Your task to perform on an android device: toggle javascript in the chrome app Image 0: 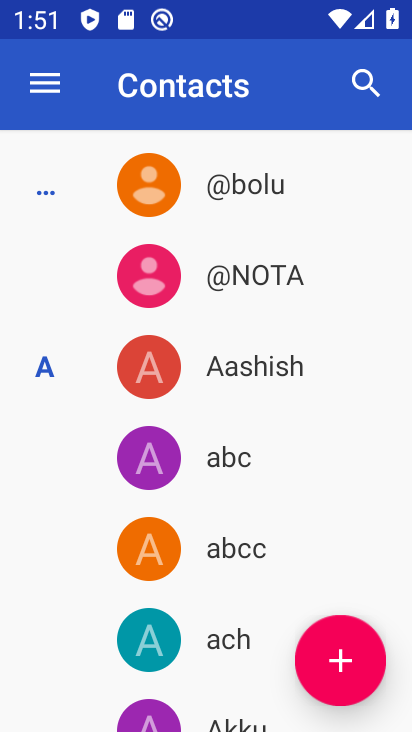
Step 0: press home button
Your task to perform on an android device: toggle javascript in the chrome app Image 1: 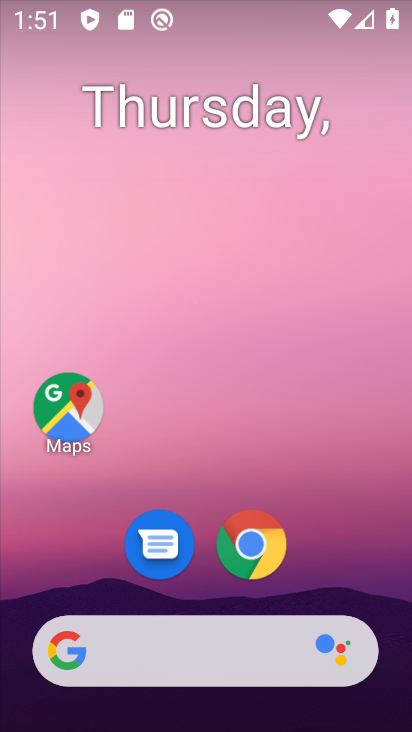
Step 1: click (272, 562)
Your task to perform on an android device: toggle javascript in the chrome app Image 2: 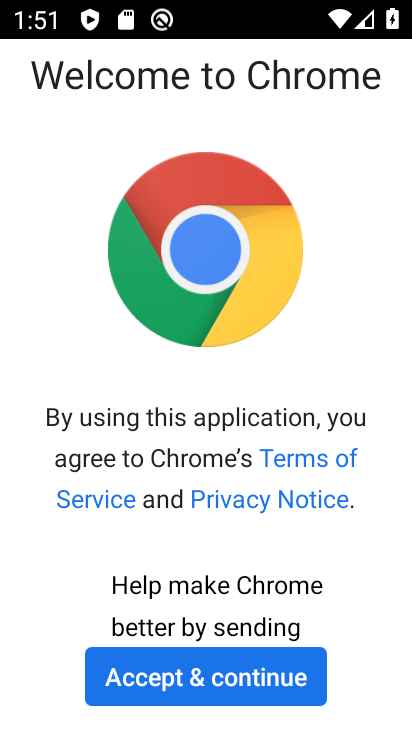
Step 2: click (296, 675)
Your task to perform on an android device: toggle javascript in the chrome app Image 3: 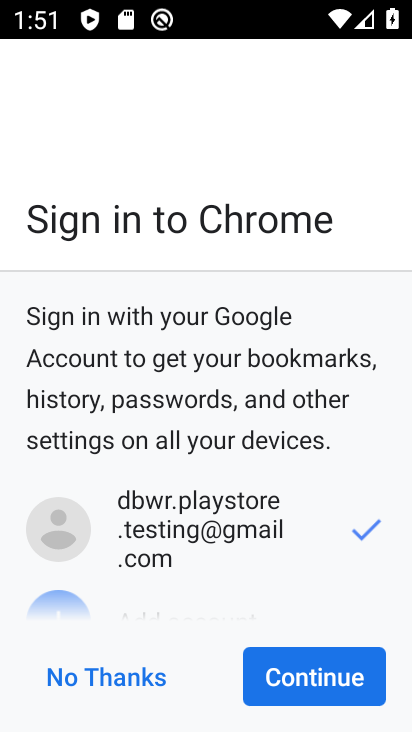
Step 3: click (338, 673)
Your task to perform on an android device: toggle javascript in the chrome app Image 4: 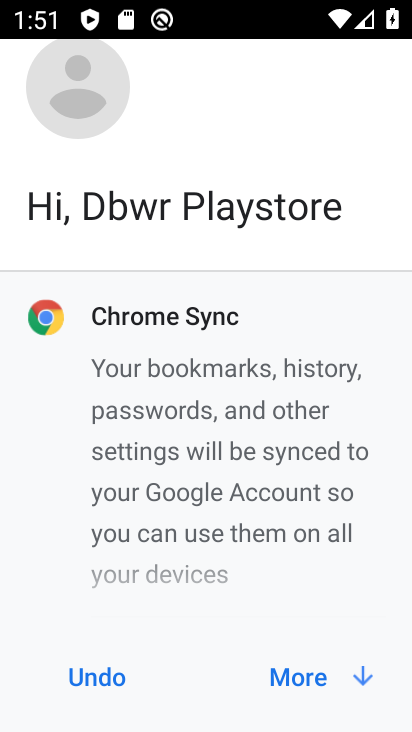
Step 4: click (338, 673)
Your task to perform on an android device: toggle javascript in the chrome app Image 5: 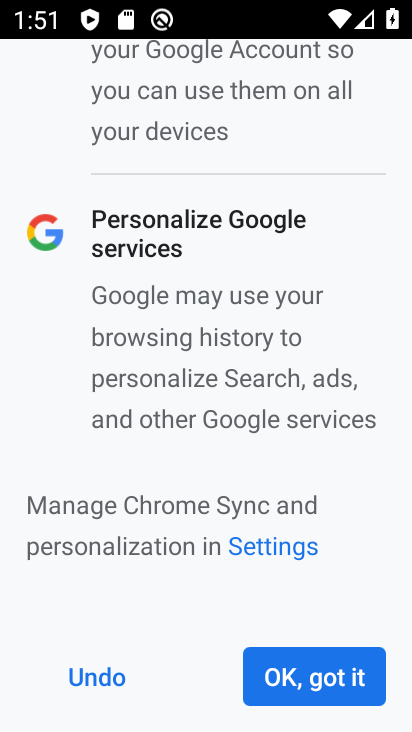
Step 5: click (338, 673)
Your task to perform on an android device: toggle javascript in the chrome app Image 6: 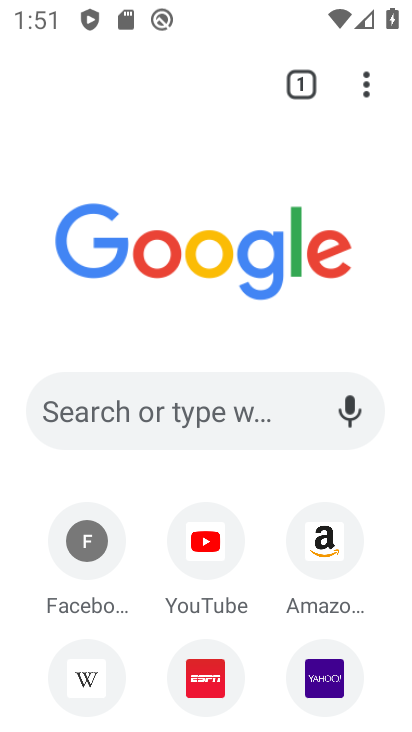
Step 6: click (364, 75)
Your task to perform on an android device: toggle javascript in the chrome app Image 7: 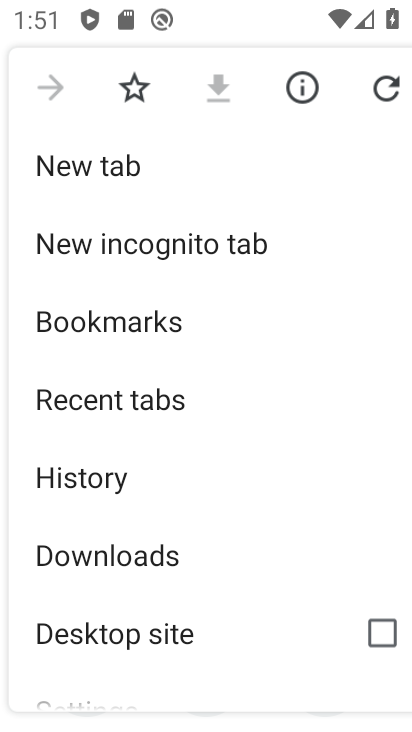
Step 7: drag from (201, 566) to (245, 126)
Your task to perform on an android device: toggle javascript in the chrome app Image 8: 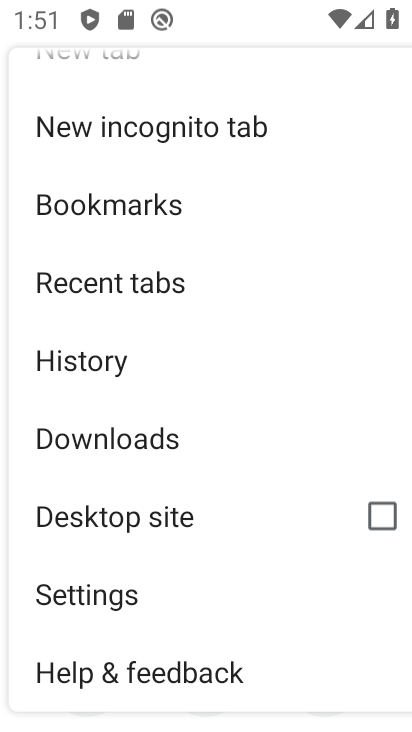
Step 8: click (133, 592)
Your task to perform on an android device: toggle javascript in the chrome app Image 9: 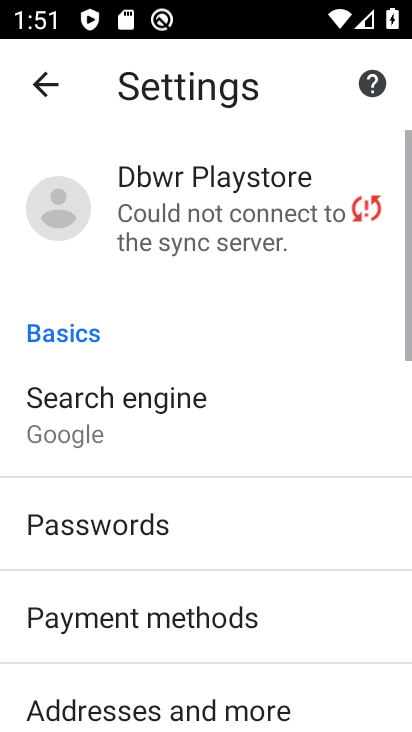
Step 9: drag from (133, 592) to (219, 130)
Your task to perform on an android device: toggle javascript in the chrome app Image 10: 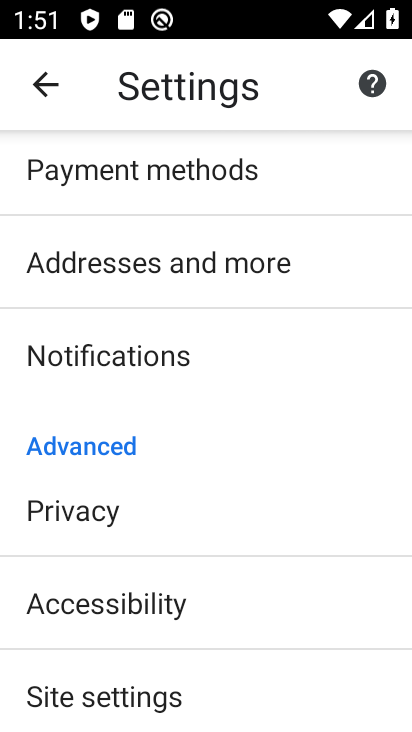
Step 10: drag from (189, 627) to (236, 247)
Your task to perform on an android device: toggle javascript in the chrome app Image 11: 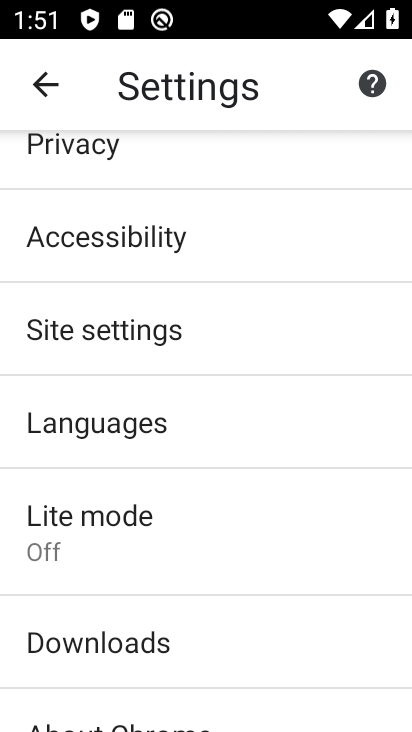
Step 11: drag from (195, 604) to (234, 226)
Your task to perform on an android device: toggle javascript in the chrome app Image 12: 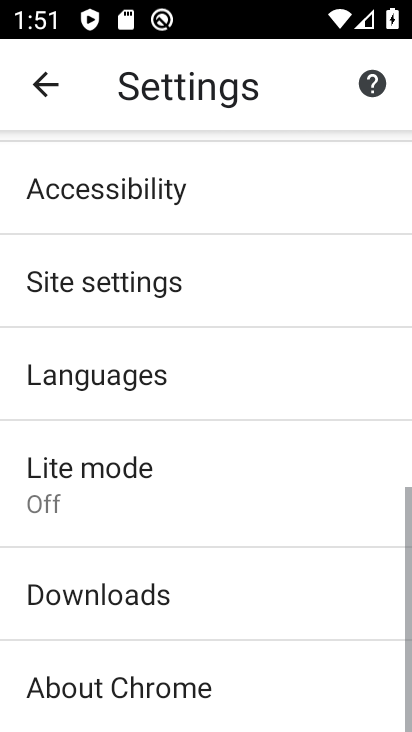
Step 12: drag from (205, 627) to (269, 245)
Your task to perform on an android device: toggle javascript in the chrome app Image 13: 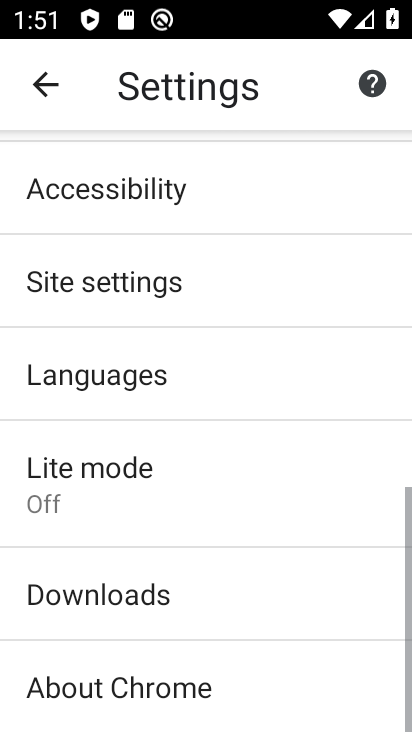
Step 13: click (246, 302)
Your task to perform on an android device: toggle javascript in the chrome app Image 14: 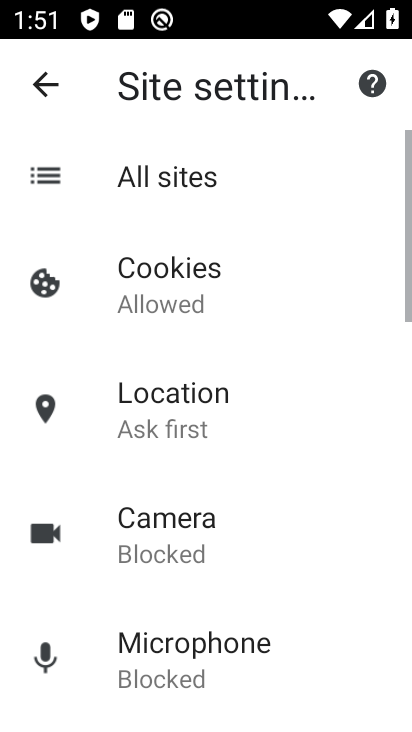
Step 14: drag from (201, 572) to (267, 232)
Your task to perform on an android device: toggle javascript in the chrome app Image 15: 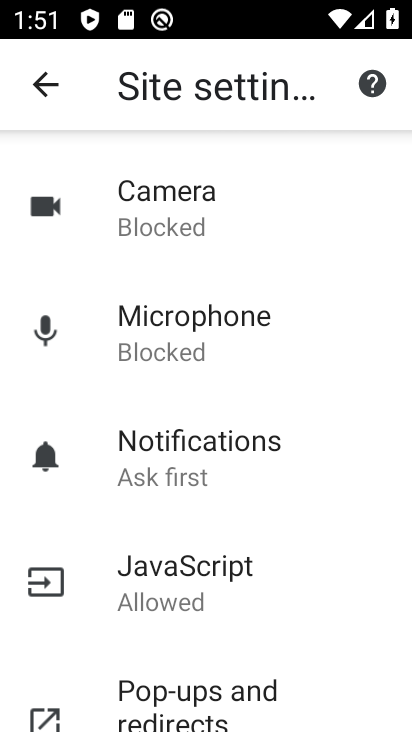
Step 15: drag from (198, 618) to (282, 315)
Your task to perform on an android device: toggle javascript in the chrome app Image 16: 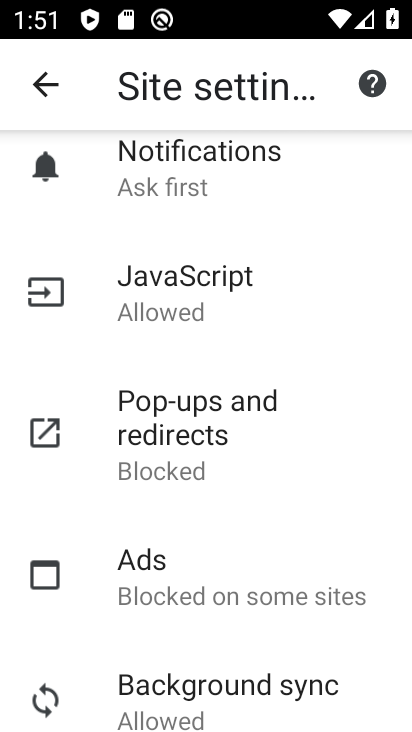
Step 16: click (269, 275)
Your task to perform on an android device: toggle javascript in the chrome app Image 17: 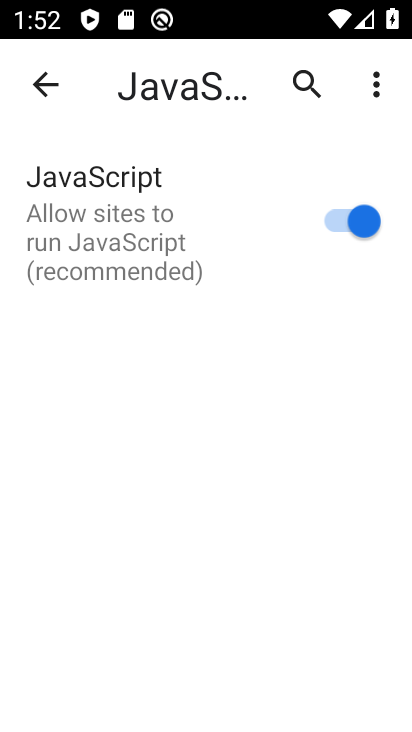
Step 17: click (352, 222)
Your task to perform on an android device: toggle javascript in the chrome app Image 18: 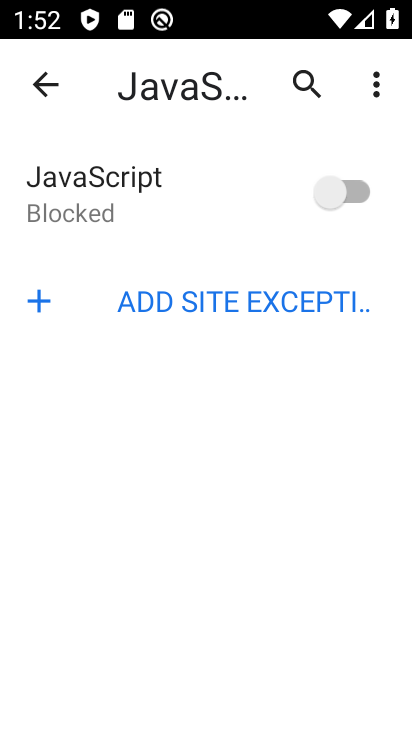
Step 18: task complete